Your task to perform on an android device: turn off picture-in-picture Image 0: 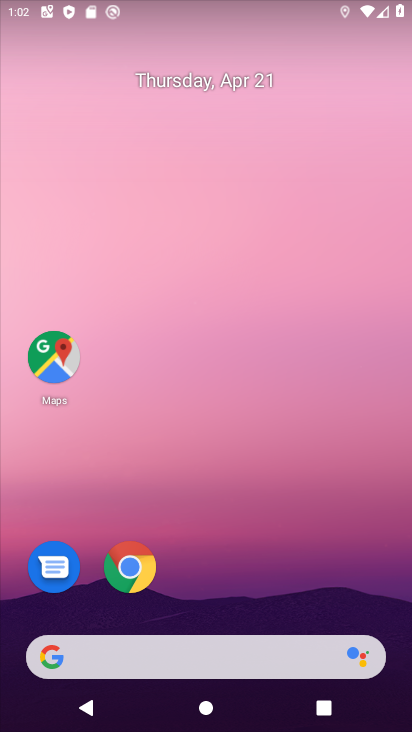
Step 0: click (44, 345)
Your task to perform on an android device: turn off picture-in-picture Image 1: 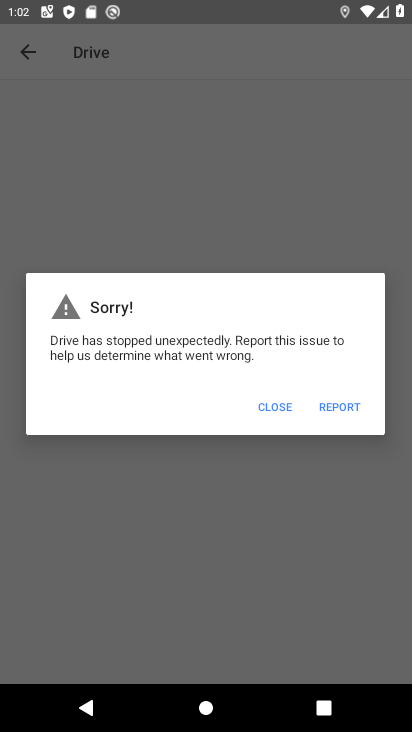
Step 1: click (261, 407)
Your task to perform on an android device: turn off picture-in-picture Image 2: 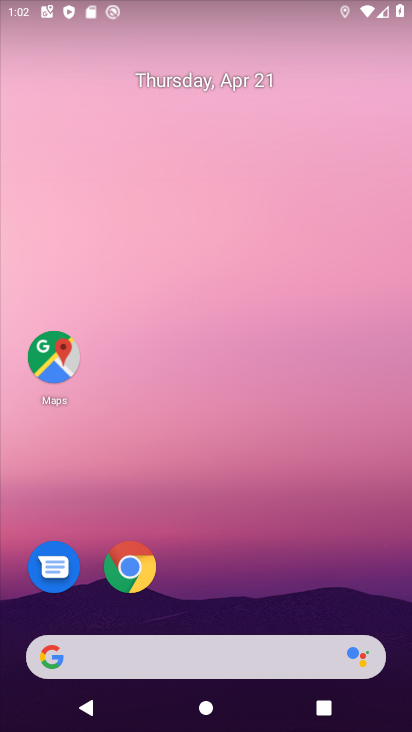
Step 2: drag from (220, 489) to (271, 48)
Your task to perform on an android device: turn off picture-in-picture Image 3: 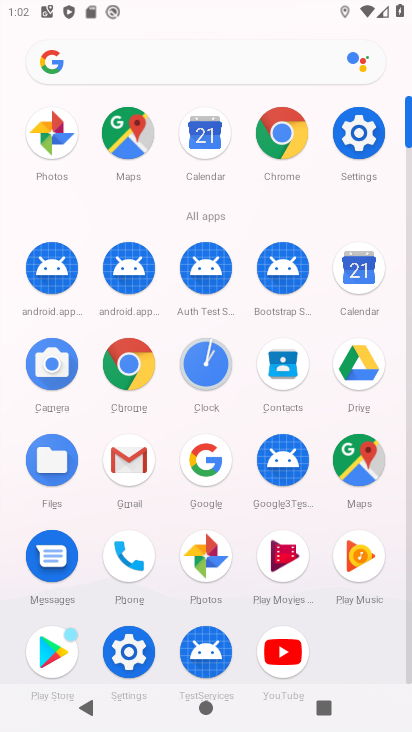
Step 3: click (355, 138)
Your task to perform on an android device: turn off picture-in-picture Image 4: 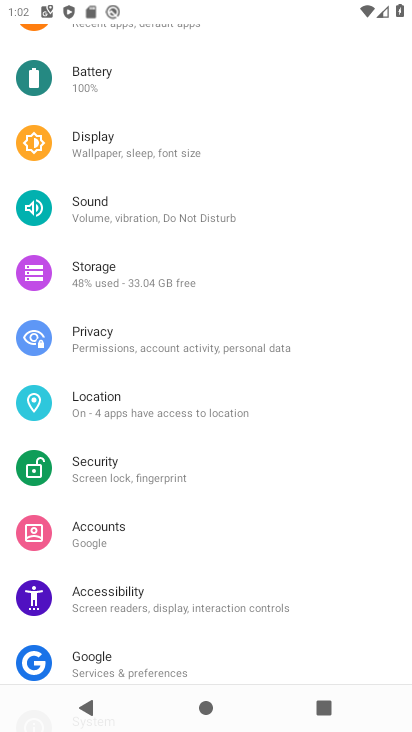
Step 4: drag from (164, 265) to (163, 618)
Your task to perform on an android device: turn off picture-in-picture Image 5: 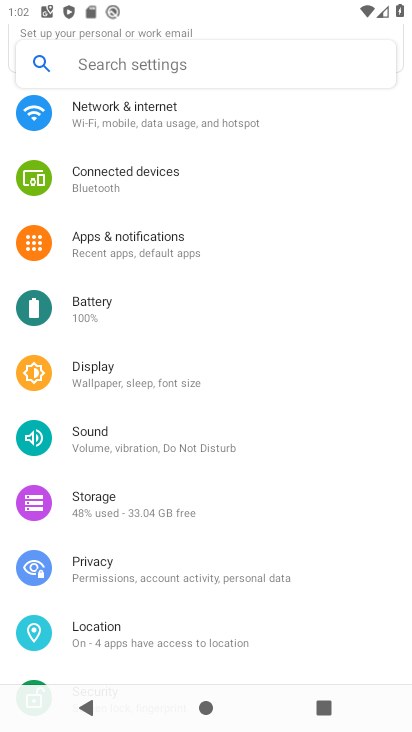
Step 5: click (153, 246)
Your task to perform on an android device: turn off picture-in-picture Image 6: 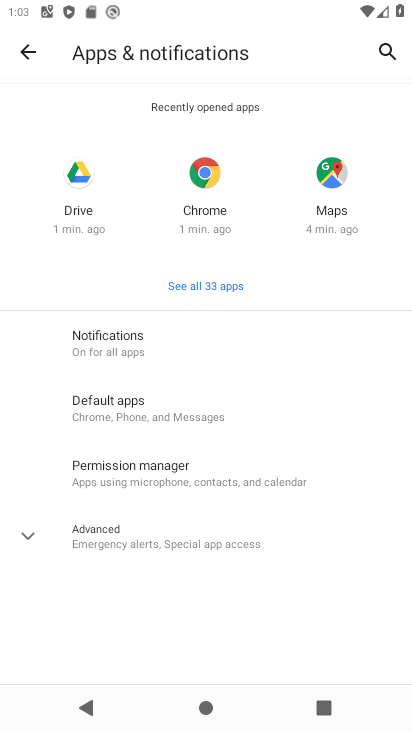
Step 6: click (136, 542)
Your task to perform on an android device: turn off picture-in-picture Image 7: 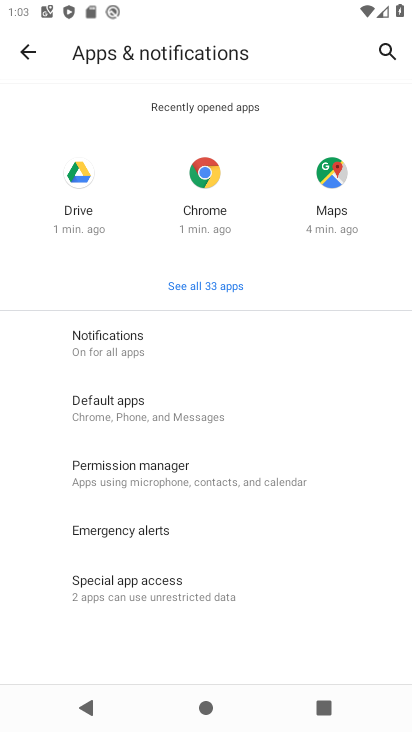
Step 7: click (144, 588)
Your task to perform on an android device: turn off picture-in-picture Image 8: 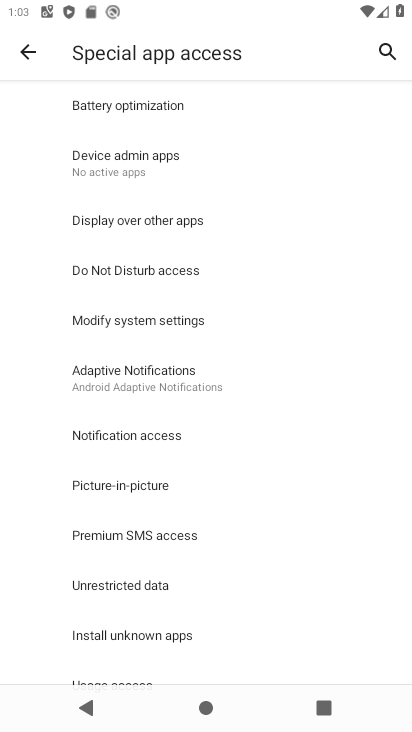
Step 8: click (143, 488)
Your task to perform on an android device: turn off picture-in-picture Image 9: 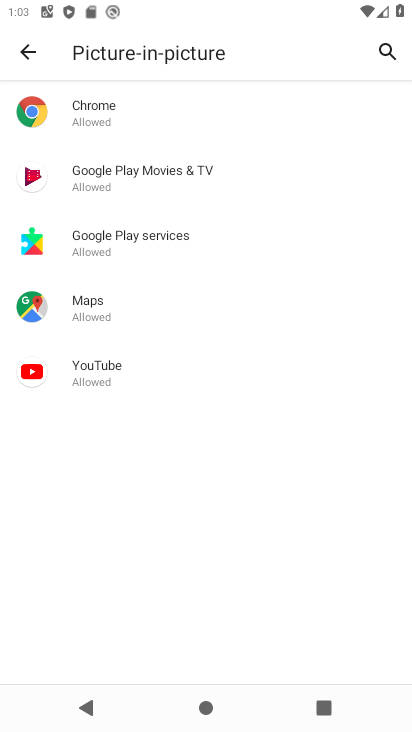
Step 9: click (106, 122)
Your task to perform on an android device: turn off picture-in-picture Image 10: 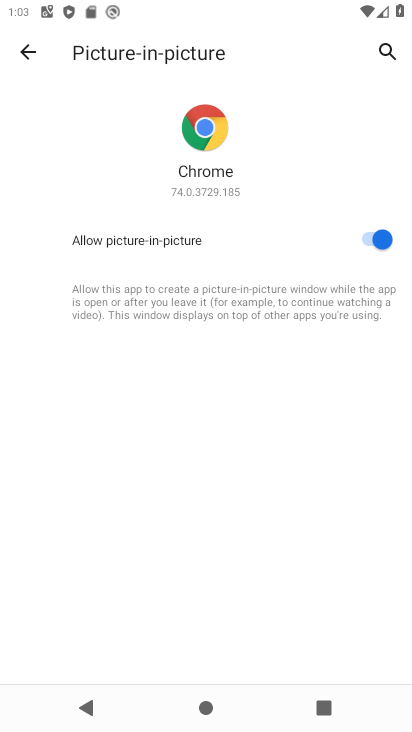
Step 10: click (380, 237)
Your task to perform on an android device: turn off picture-in-picture Image 11: 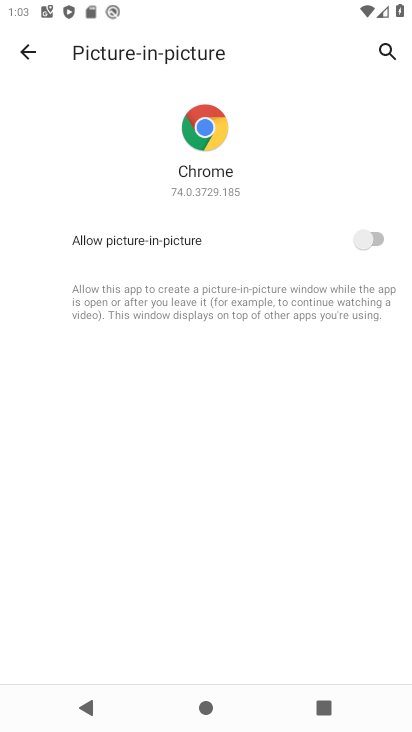
Step 11: task complete